Your task to perform on an android device: Go to network settings Image 0: 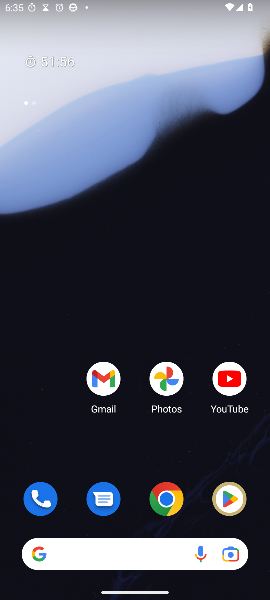
Step 0: drag from (140, 520) to (61, 15)
Your task to perform on an android device: Go to network settings Image 1: 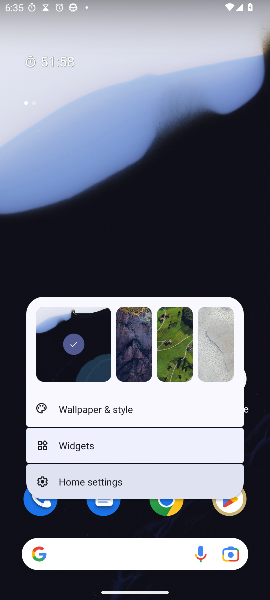
Step 1: drag from (132, 581) to (104, 45)
Your task to perform on an android device: Go to network settings Image 2: 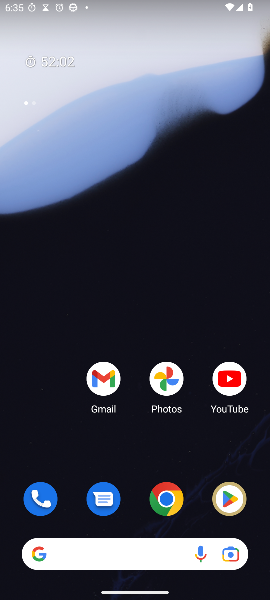
Step 2: drag from (114, 470) to (97, 42)
Your task to perform on an android device: Go to network settings Image 3: 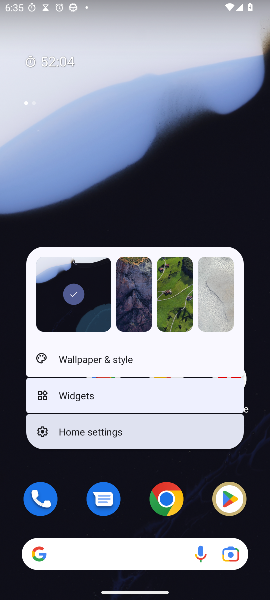
Step 3: click (87, 124)
Your task to perform on an android device: Go to network settings Image 4: 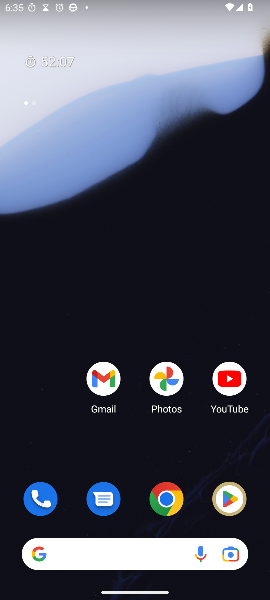
Step 4: drag from (74, 555) to (106, 74)
Your task to perform on an android device: Go to network settings Image 5: 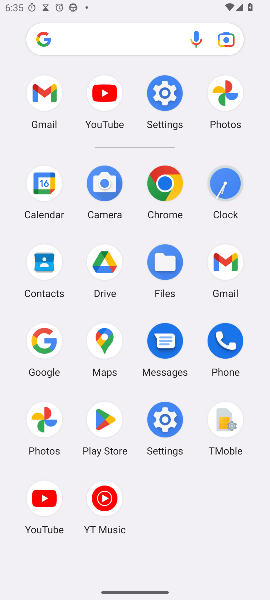
Step 5: click (168, 95)
Your task to perform on an android device: Go to network settings Image 6: 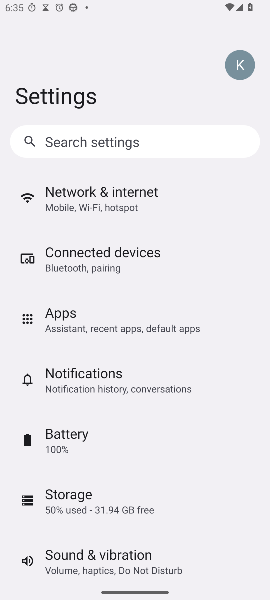
Step 6: click (128, 205)
Your task to perform on an android device: Go to network settings Image 7: 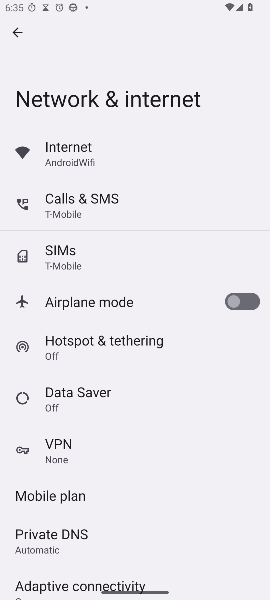
Step 7: click (69, 149)
Your task to perform on an android device: Go to network settings Image 8: 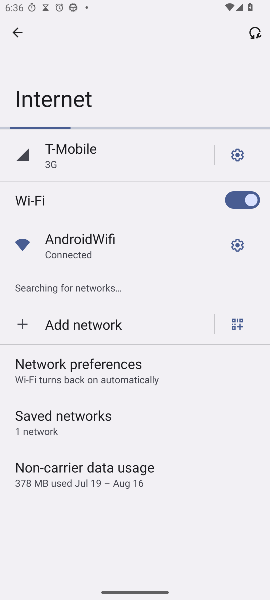
Step 8: task complete